Your task to perform on an android device: Open accessibility settings Image 0: 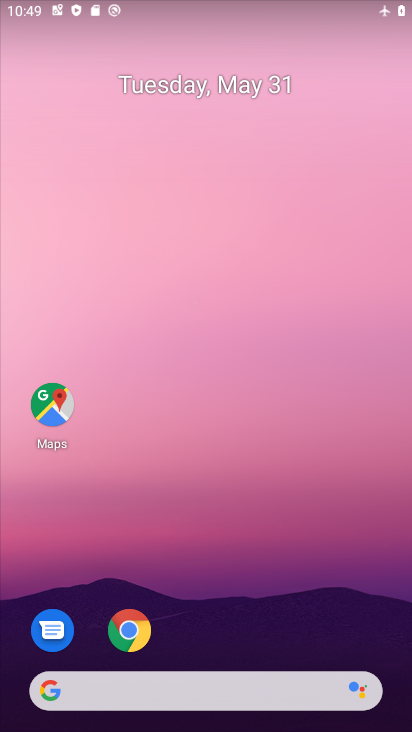
Step 0: drag from (255, 648) to (263, 159)
Your task to perform on an android device: Open accessibility settings Image 1: 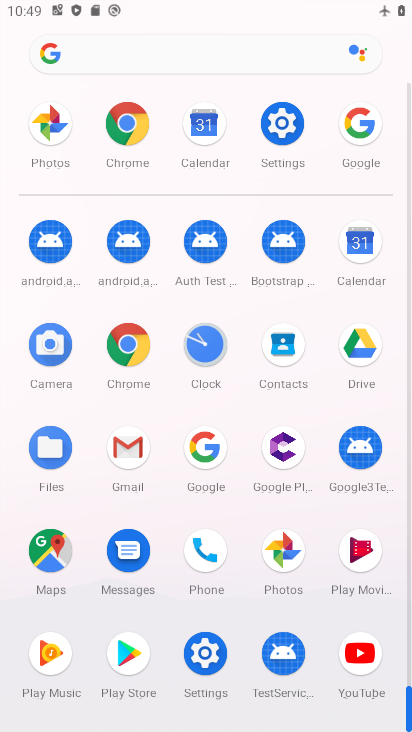
Step 1: click (281, 154)
Your task to perform on an android device: Open accessibility settings Image 2: 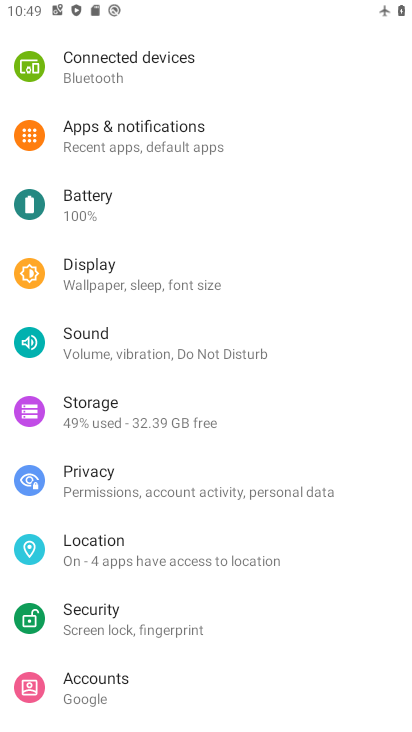
Step 2: drag from (181, 560) to (203, 310)
Your task to perform on an android device: Open accessibility settings Image 3: 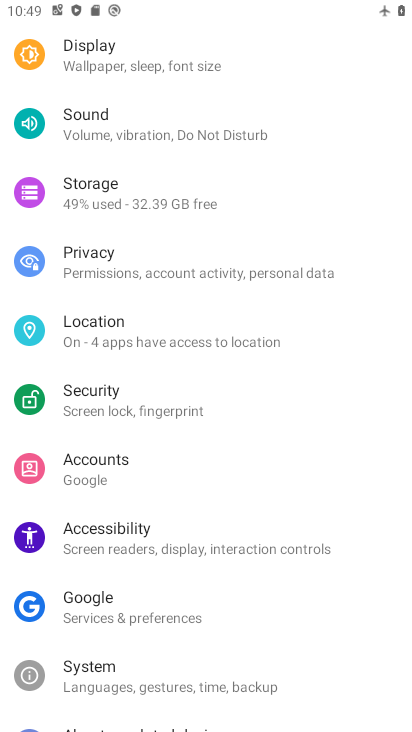
Step 3: click (226, 542)
Your task to perform on an android device: Open accessibility settings Image 4: 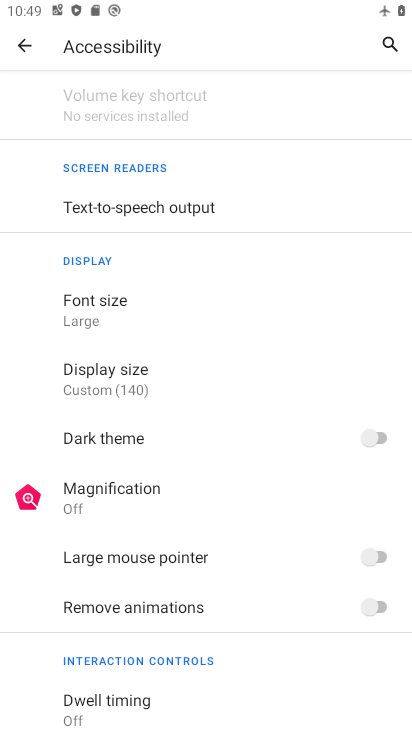
Step 4: task complete